Your task to perform on an android device: Open the stopwatch Image 0: 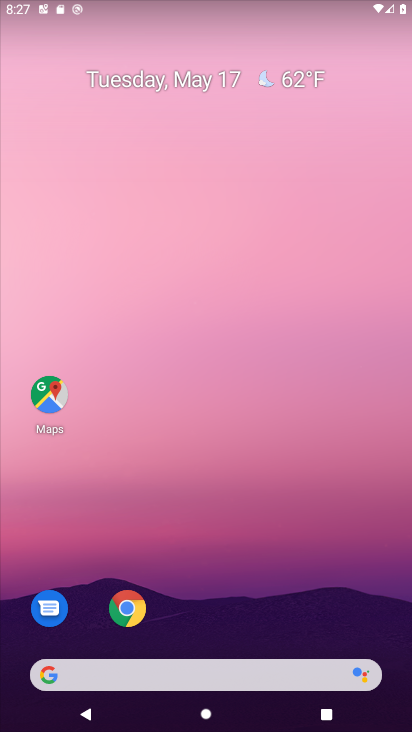
Step 0: drag from (356, 617) to (380, 156)
Your task to perform on an android device: Open the stopwatch Image 1: 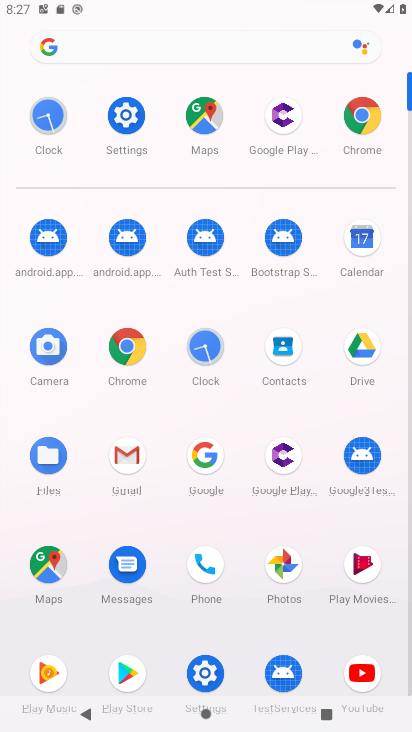
Step 1: click (190, 353)
Your task to perform on an android device: Open the stopwatch Image 2: 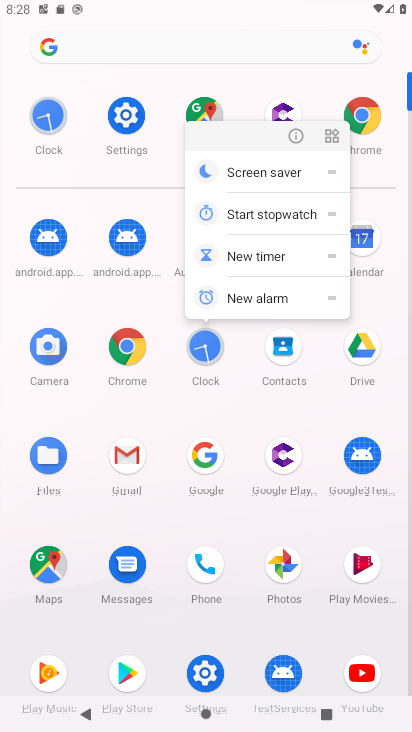
Step 2: click (203, 350)
Your task to perform on an android device: Open the stopwatch Image 3: 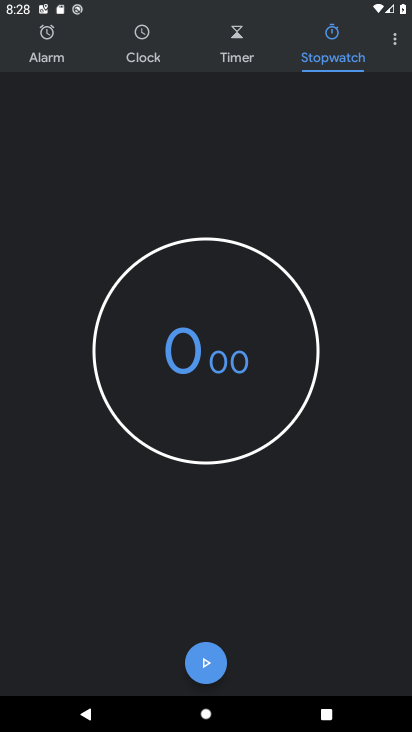
Step 3: task complete